Your task to perform on an android device: Go to notification settings Image 0: 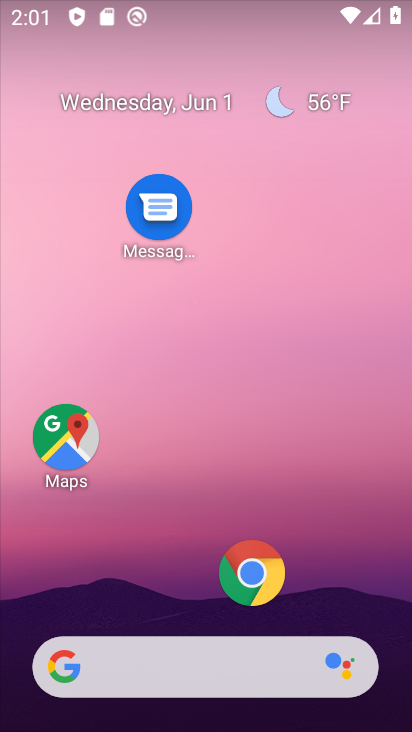
Step 0: drag from (216, 639) to (285, 236)
Your task to perform on an android device: Go to notification settings Image 1: 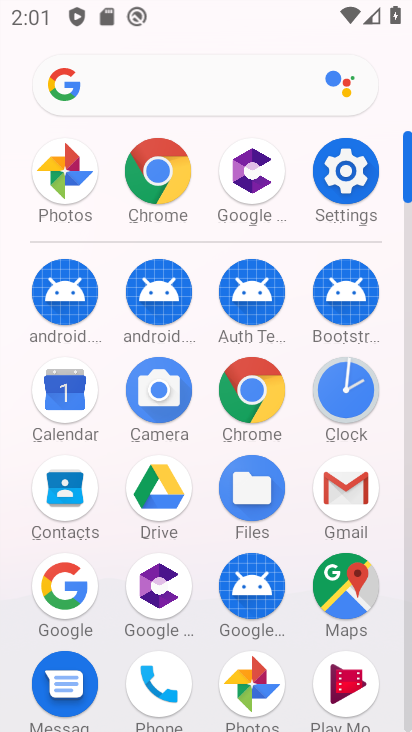
Step 1: click (323, 194)
Your task to perform on an android device: Go to notification settings Image 2: 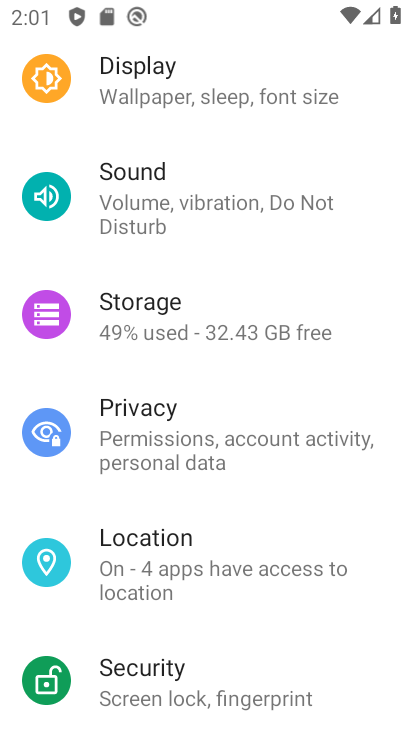
Step 2: drag from (254, 305) to (229, 687)
Your task to perform on an android device: Go to notification settings Image 3: 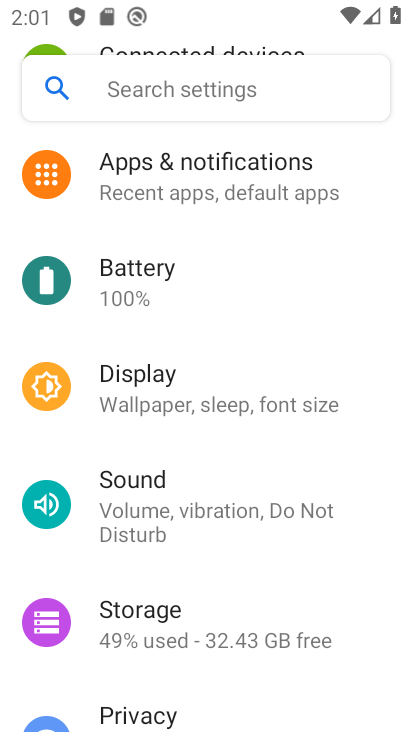
Step 3: click (200, 186)
Your task to perform on an android device: Go to notification settings Image 4: 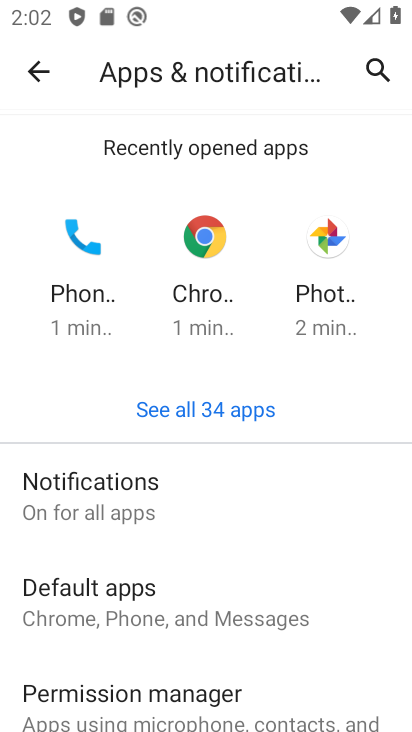
Step 4: click (163, 509)
Your task to perform on an android device: Go to notification settings Image 5: 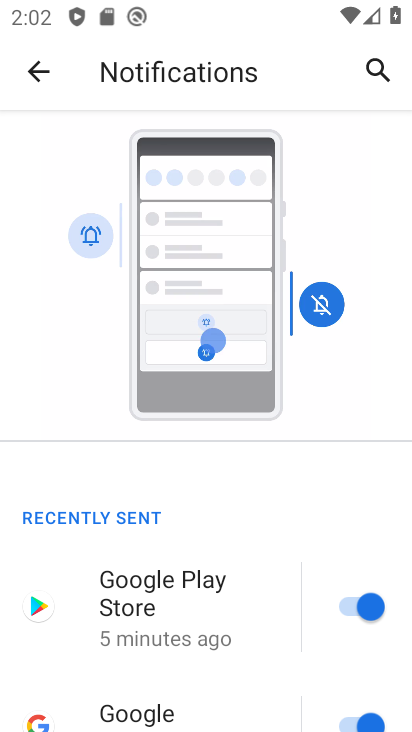
Step 5: task complete